Your task to perform on an android device: Do I have any events tomorrow? Image 0: 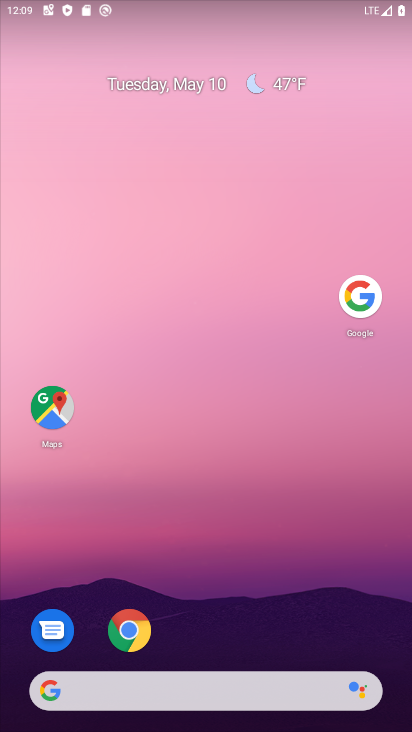
Step 0: press home button
Your task to perform on an android device: Do I have any events tomorrow? Image 1: 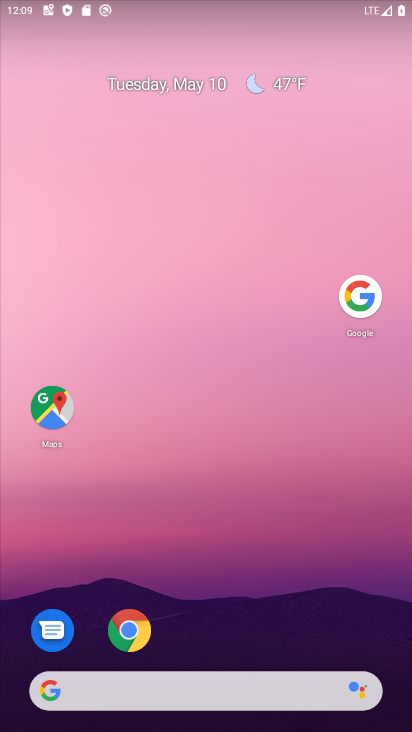
Step 1: drag from (170, 685) to (312, 109)
Your task to perform on an android device: Do I have any events tomorrow? Image 2: 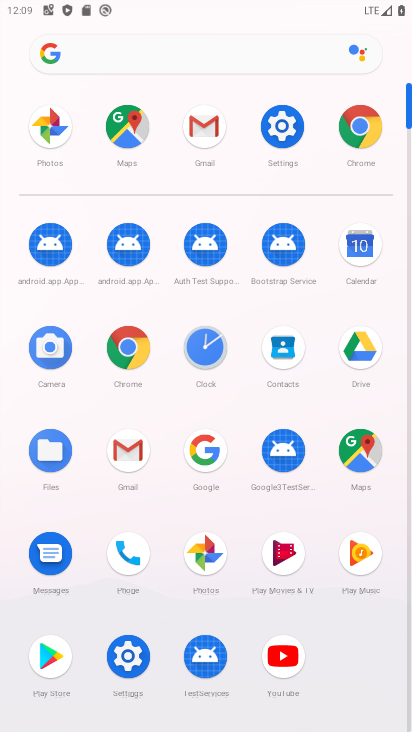
Step 2: click (359, 256)
Your task to perform on an android device: Do I have any events tomorrow? Image 3: 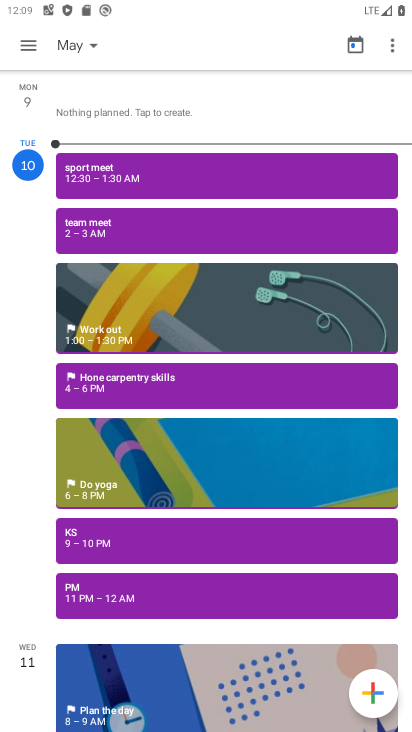
Step 3: click (63, 45)
Your task to perform on an android device: Do I have any events tomorrow? Image 4: 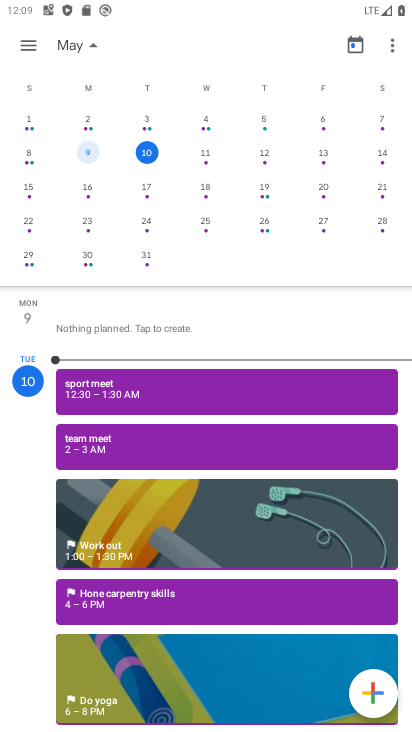
Step 4: click (209, 157)
Your task to perform on an android device: Do I have any events tomorrow? Image 5: 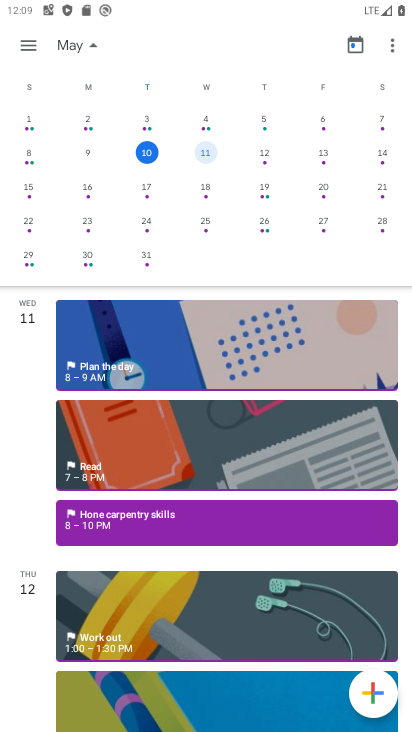
Step 5: click (26, 45)
Your task to perform on an android device: Do I have any events tomorrow? Image 6: 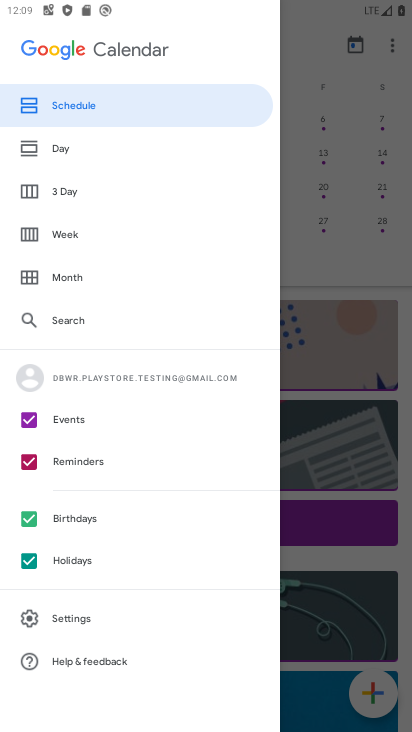
Step 6: click (63, 149)
Your task to perform on an android device: Do I have any events tomorrow? Image 7: 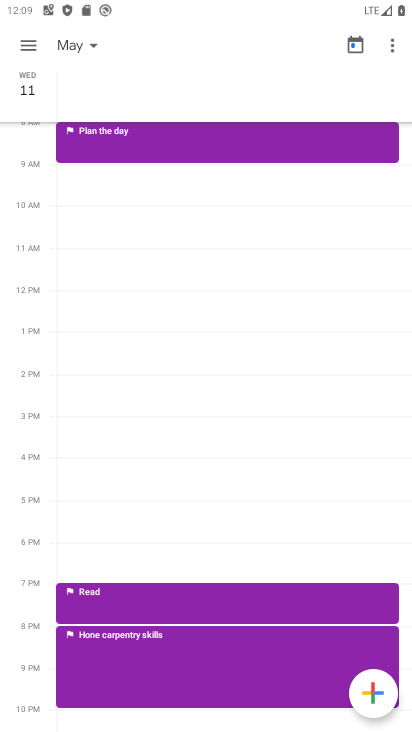
Step 7: click (26, 49)
Your task to perform on an android device: Do I have any events tomorrow? Image 8: 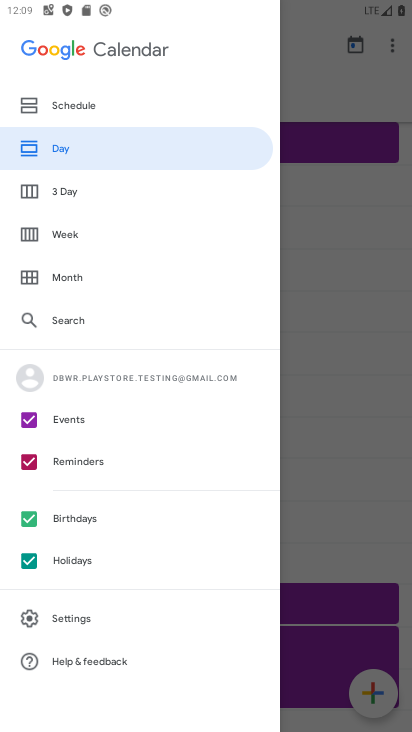
Step 8: click (75, 102)
Your task to perform on an android device: Do I have any events tomorrow? Image 9: 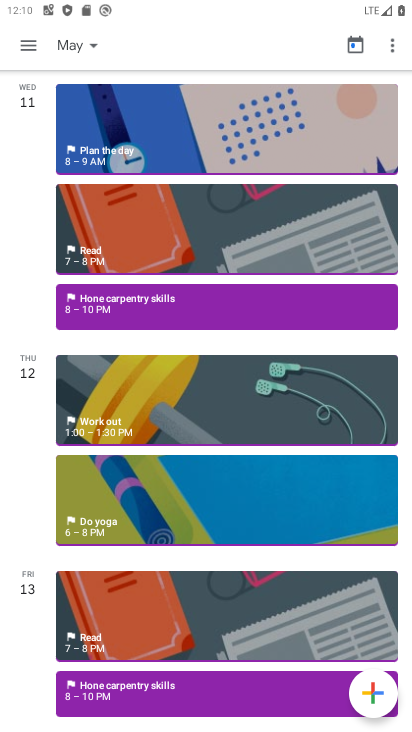
Step 9: click (146, 303)
Your task to perform on an android device: Do I have any events tomorrow? Image 10: 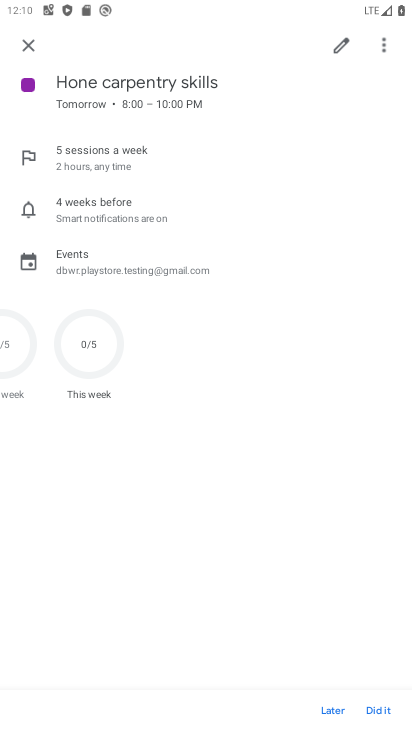
Step 10: task complete